Your task to perform on an android device: toggle javascript in the chrome app Image 0: 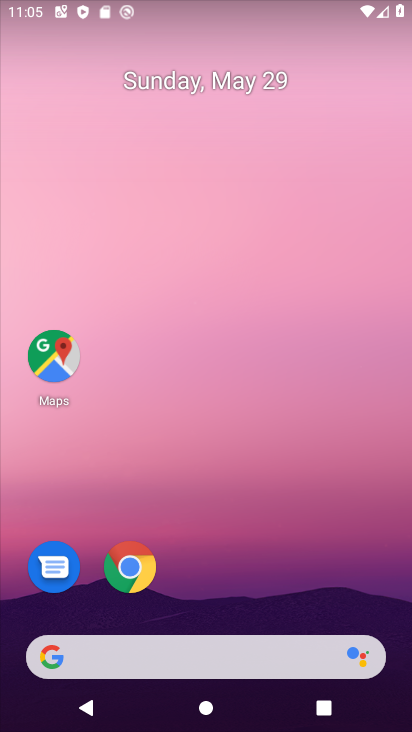
Step 0: drag from (230, 625) to (227, 6)
Your task to perform on an android device: toggle javascript in the chrome app Image 1: 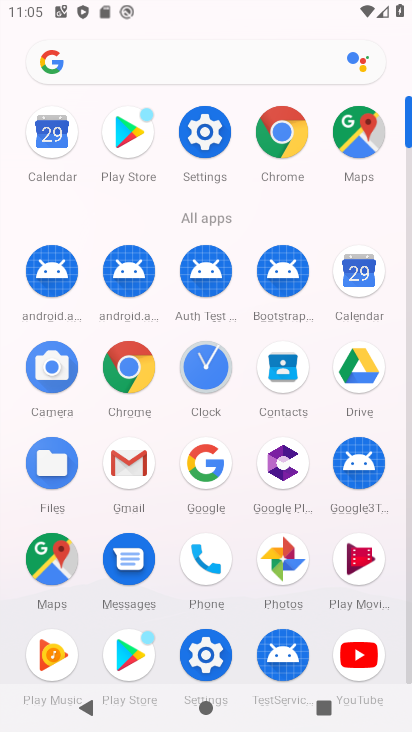
Step 1: click (132, 365)
Your task to perform on an android device: toggle javascript in the chrome app Image 2: 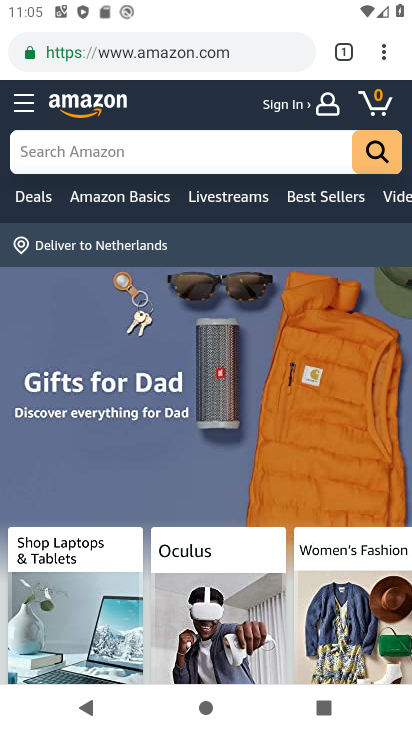
Step 2: drag from (382, 55) to (220, 619)
Your task to perform on an android device: toggle javascript in the chrome app Image 3: 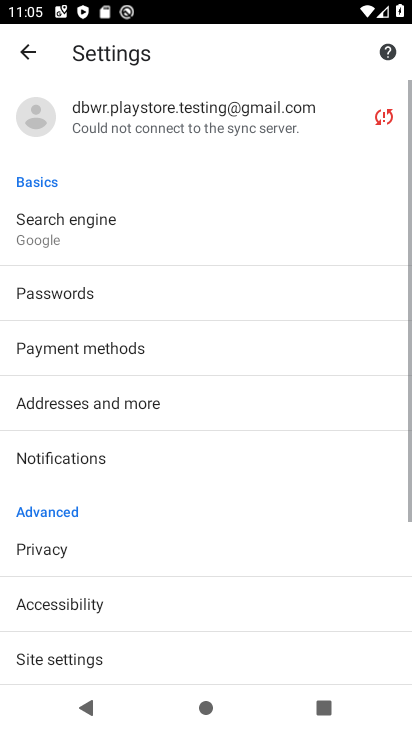
Step 3: drag from (220, 619) to (225, 447)
Your task to perform on an android device: toggle javascript in the chrome app Image 4: 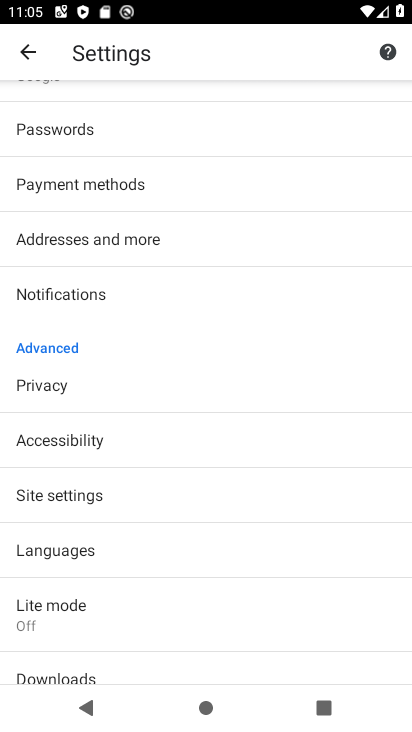
Step 4: click (101, 488)
Your task to perform on an android device: toggle javascript in the chrome app Image 5: 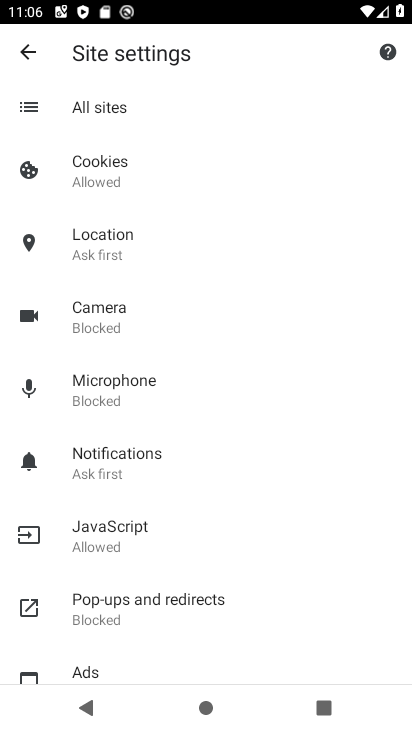
Step 5: click (113, 538)
Your task to perform on an android device: toggle javascript in the chrome app Image 6: 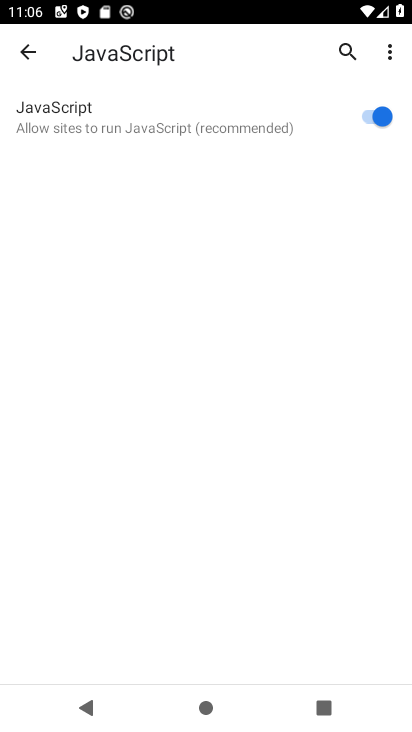
Step 6: click (375, 122)
Your task to perform on an android device: toggle javascript in the chrome app Image 7: 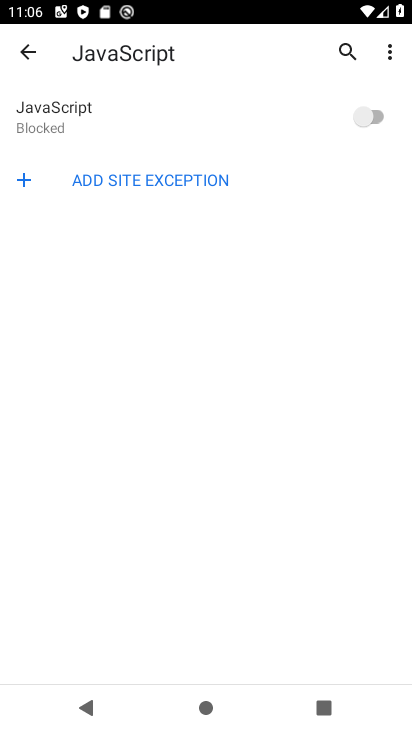
Step 7: task complete